Your task to perform on an android device: Open ESPN.com Image 0: 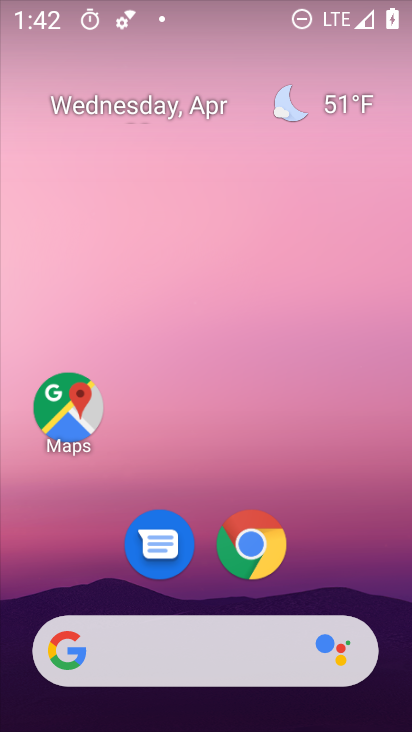
Step 0: drag from (348, 528) to (357, 88)
Your task to perform on an android device: Open ESPN.com Image 1: 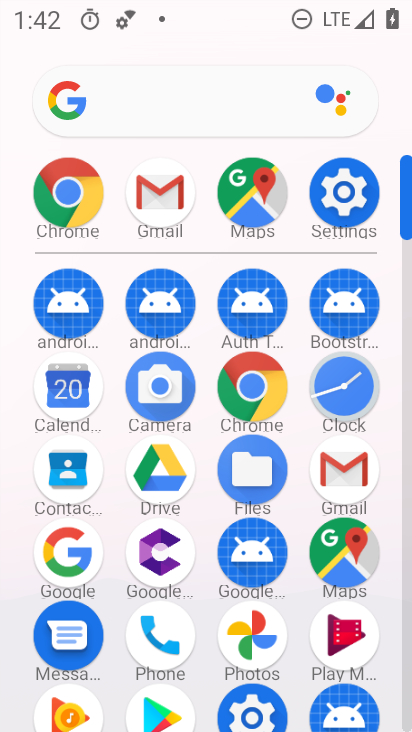
Step 1: click (254, 388)
Your task to perform on an android device: Open ESPN.com Image 2: 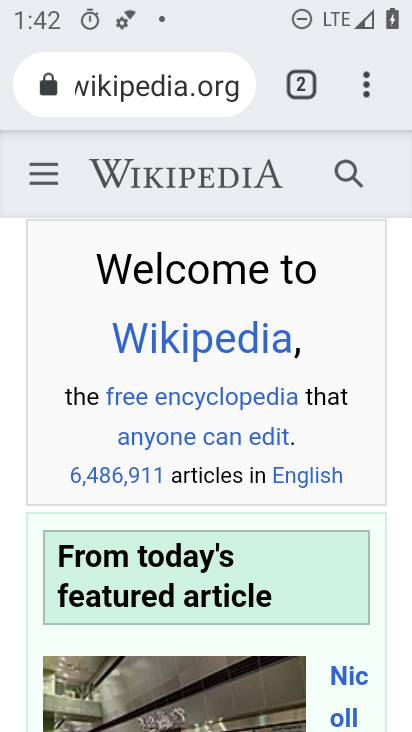
Step 2: press back button
Your task to perform on an android device: Open ESPN.com Image 3: 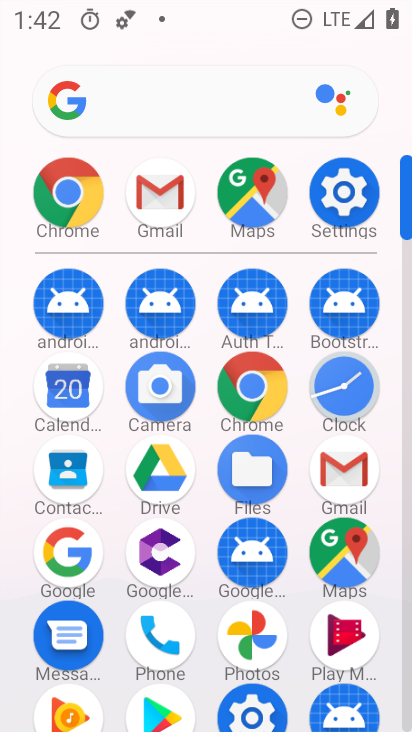
Step 3: click (255, 396)
Your task to perform on an android device: Open ESPN.com Image 4: 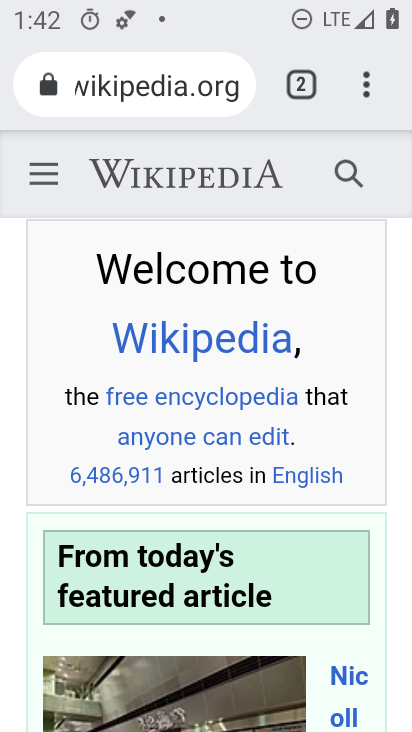
Step 4: click (219, 86)
Your task to perform on an android device: Open ESPN.com Image 5: 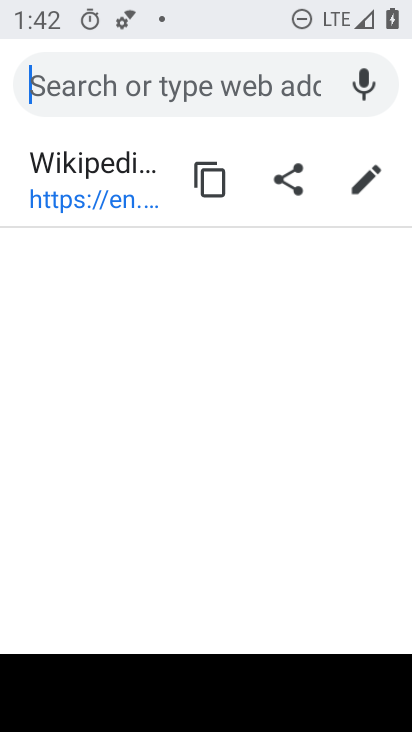
Step 5: type "espn.com"
Your task to perform on an android device: Open ESPN.com Image 6: 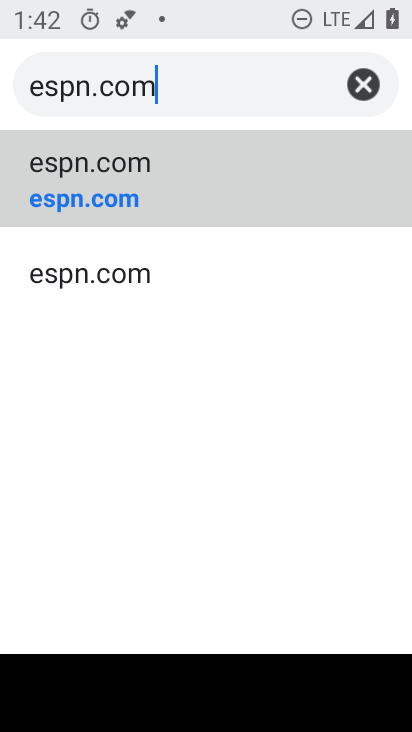
Step 6: click (142, 282)
Your task to perform on an android device: Open ESPN.com Image 7: 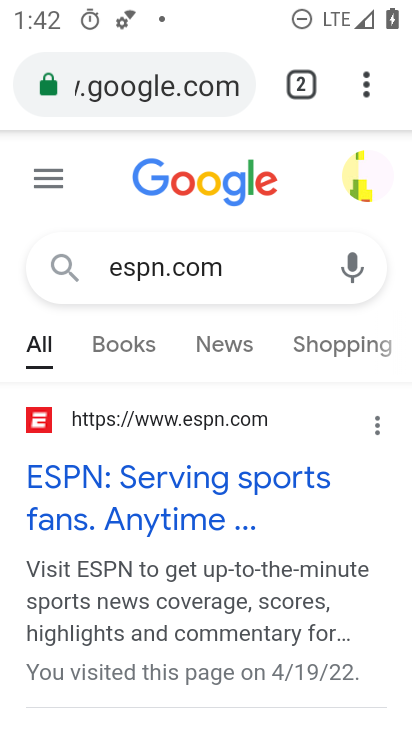
Step 7: task complete